Your task to perform on an android device: Open ESPN.com Image 0: 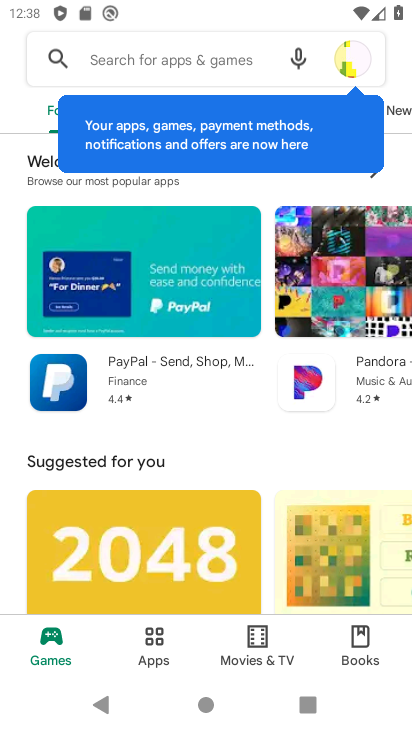
Step 0: press home button
Your task to perform on an android device: Open ESPN.com Image 1: 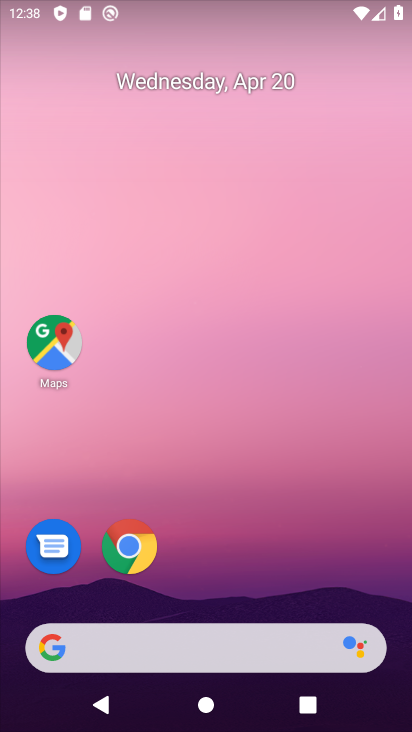
Step 1: click (125, 545)
Your task to perform on an android device: Open ESPN.com Image 2: 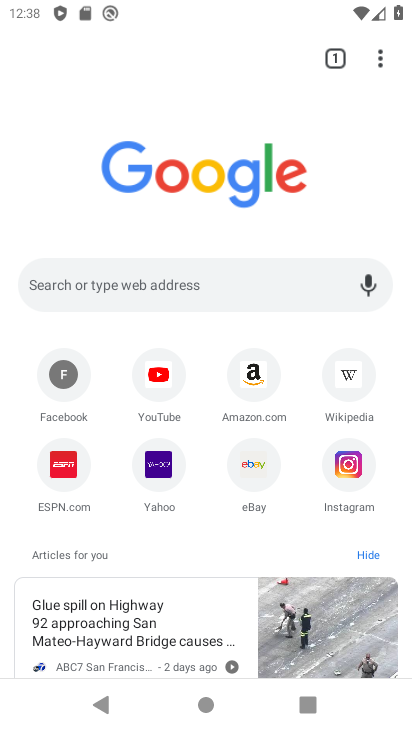
Step 2: click (65, 463)
Your task to perform on an android device: Open ESPN.com Image 3: 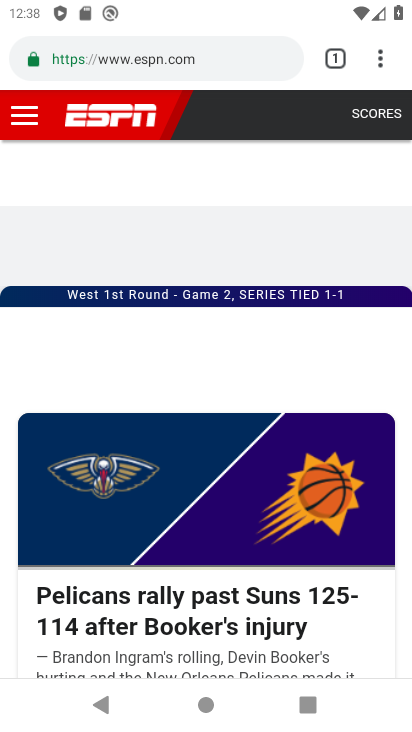
Step 3: task complete